Your task to perform on an android device: Search for Mexican restaurants on Maps Image 0: 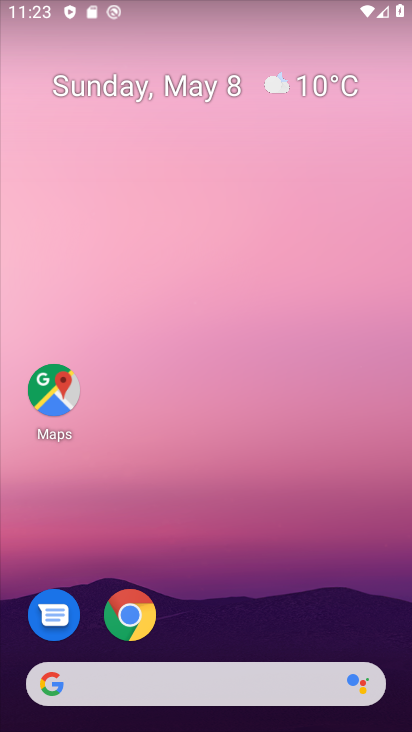
Step 0: drag from (244, 708) to (387, 257)
Your task to perform on an android device: Search for Mexican restaurants on Maps Image 1: 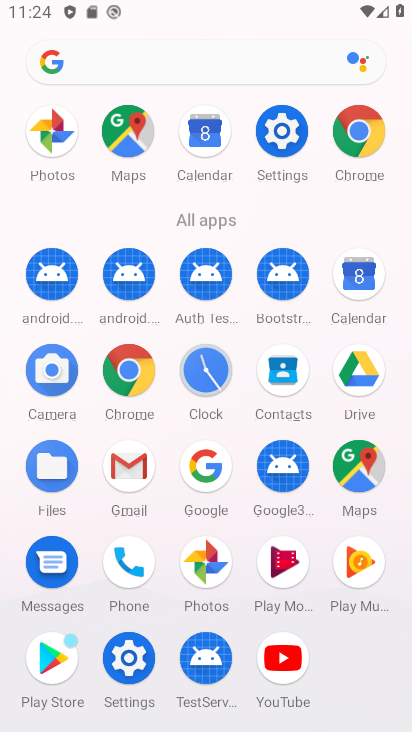
Step 1: click (132, 142)
Your task to perform on an android device: Search for Mexican restaurants on Maps Image 2: 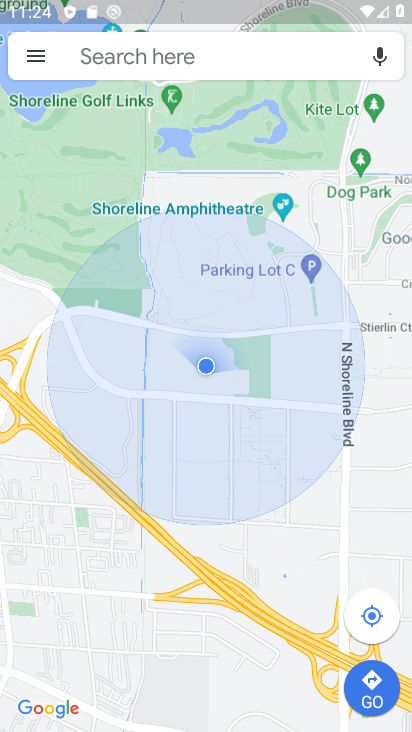
Step 2: click (163, 63)
Your task to perform on an android device: Search for Mexican restaurants on Maps Image 3: 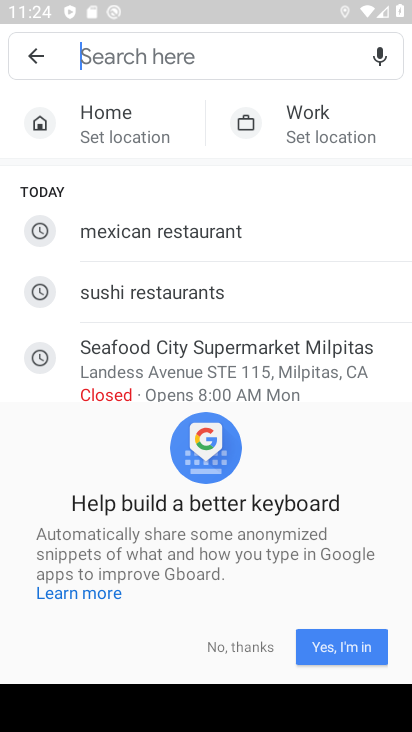
Step 3: click (218, 652)
Your task to perform on an android device: Search for Mexican restaurants on Maps Image 4: 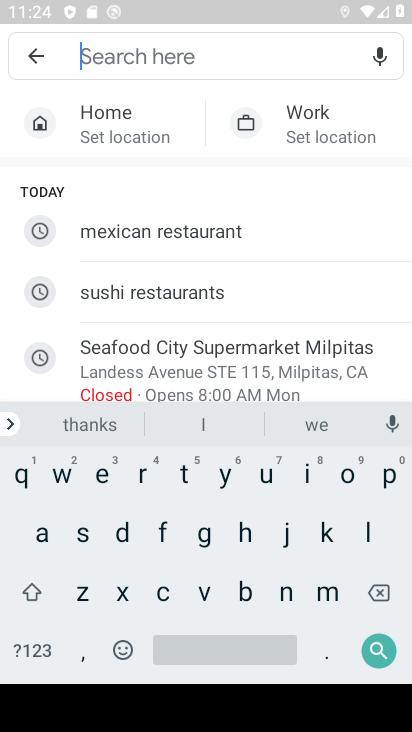
Step 4: click (319, 589)
Your task to perform on an android device: Search for Mexican restaurants on Maps Image 5: 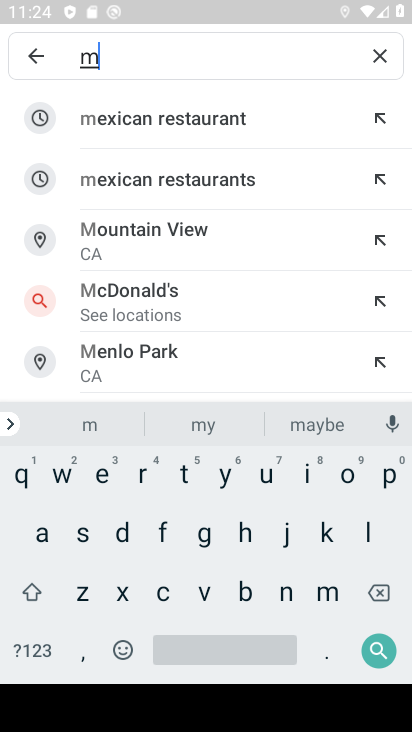
Step 5: click (135, 120)
Your task to perform on an android device: Search for Mexican restaurants on Maps Image 6: 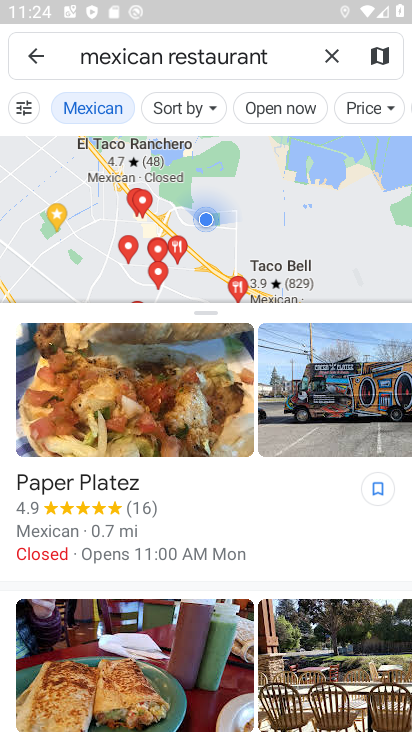
Step 6: click (109, 222)
Your task to perform on an android device: Search for Mexican restaurants on Maps Image 7: 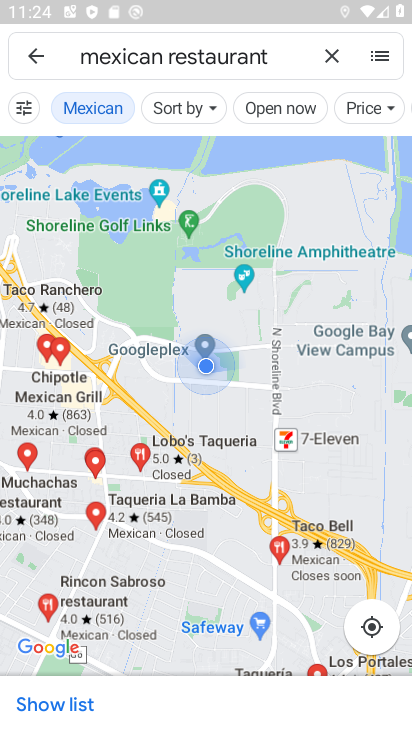
Step 7: task complete